Your task to perform on an android device: Open Maps and search for coffee Image 0: 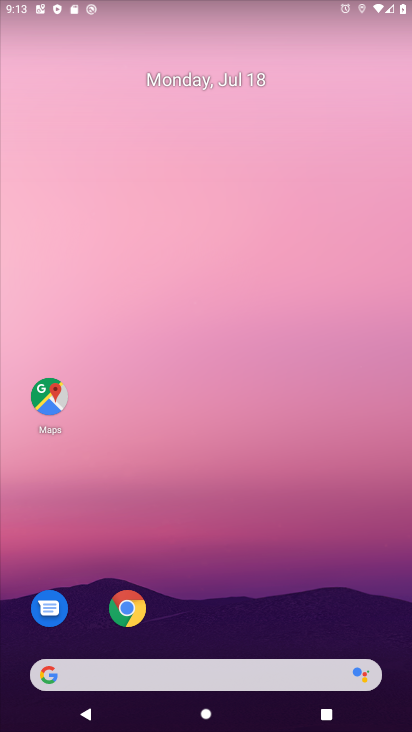
Step 0: click (34, 399)
Your task to perform on an android device: Open Maps and search for coffee Image 1: 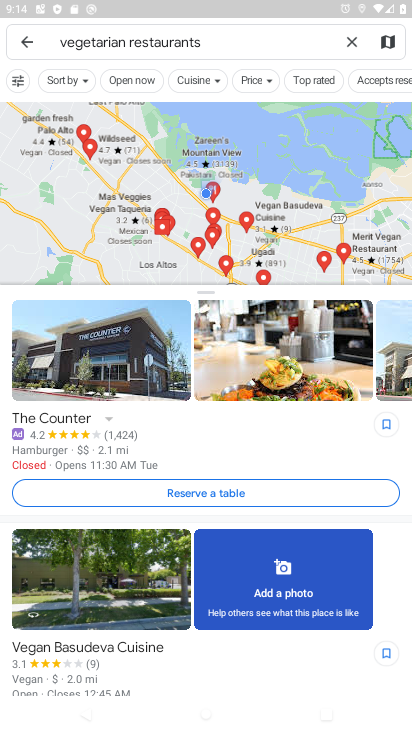
Step 1: click (344, 40)
Your task to perform on an android device: Open Maps and search for coffee Image 2: 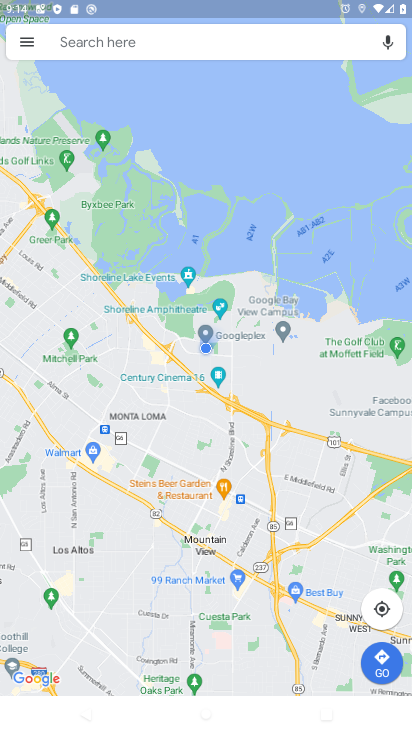
Step 2: click (68, 46)
Your task to perform on an android device: Open Maps and search for coffee Image 3: 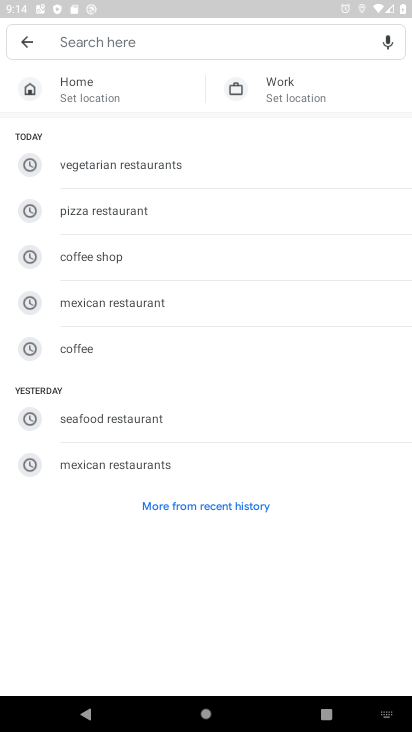
Step 3: click (86, 346)
Your task to perform on an android device: Open Maps and search for coffee Image 4: 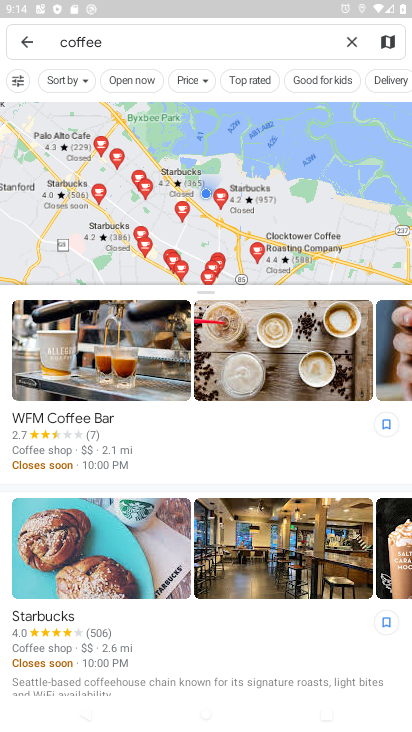
Step 4: task complete